Your task to perform on an android device: check the backup settings in the google photos Image 0: 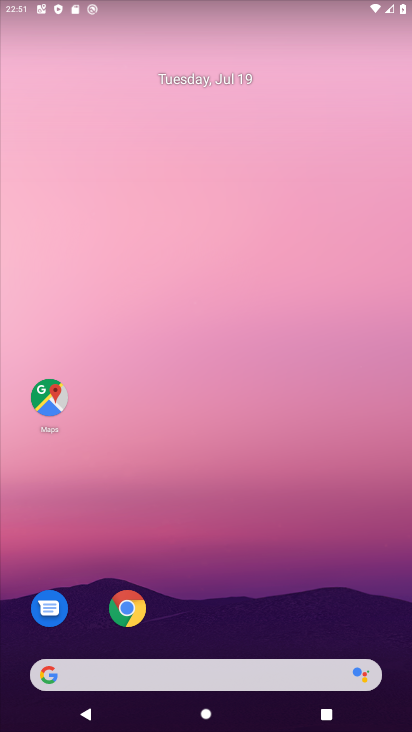
Step 0: drag from (293, 630) to (231, 71)
Your task to perform on an android device: check the backup settings in the google photos Image 1: 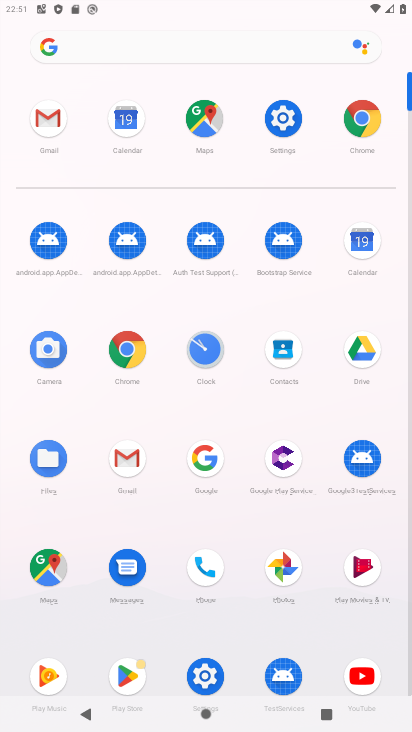
Step 1: click (285, 569)
Your task to perform on an android device: check the backup settings in the google photos Image 2: 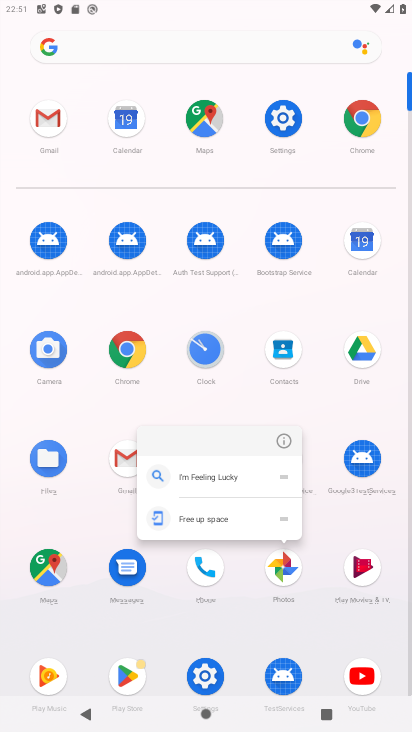
Step 2: click (285, 568)
Your task to perform on an android device: check the backup settings in the google photos Image 3: 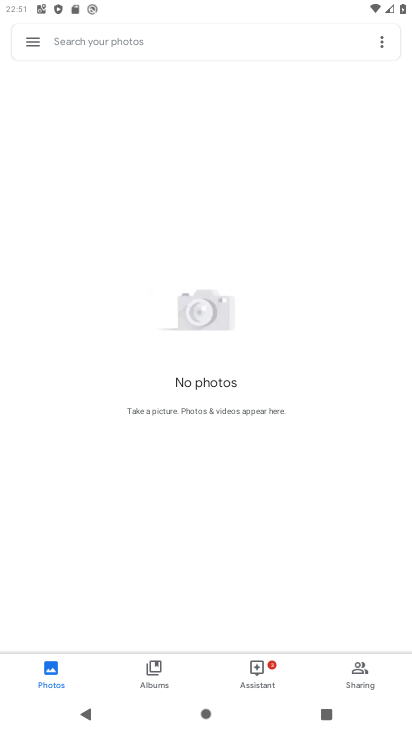
Step 3: click (36, 41)
Your task to perform on an android device: check the backup settings in the google photos Image 4: 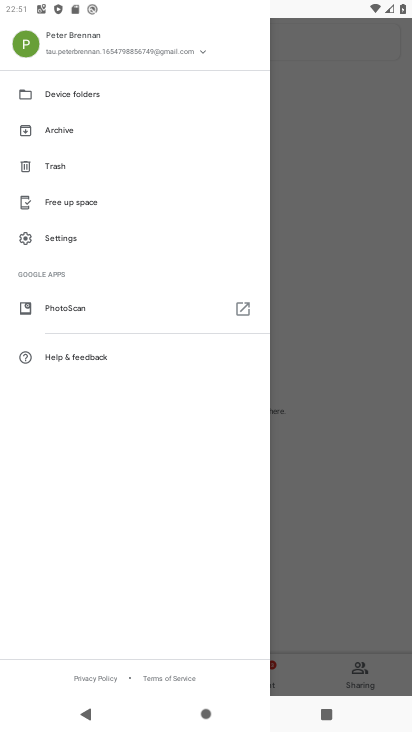
Step 4: click (59, 236)
Your task to perform on an android device: check the backup settings in the google photos Image 5: 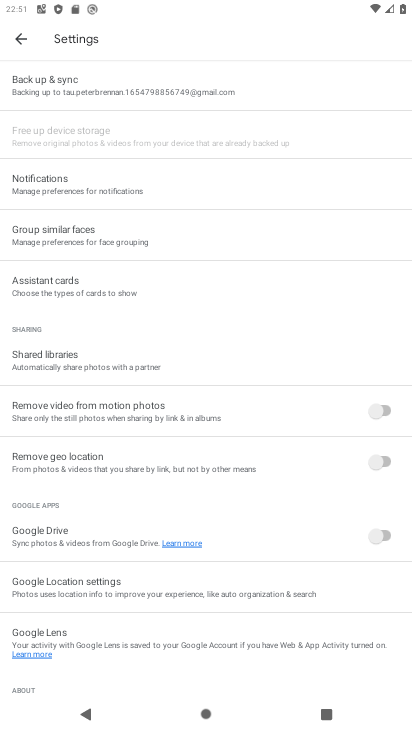
Step 5: click (118, 92)
Your task to perform on an android device: check the backup settings in the google photos Image 6: 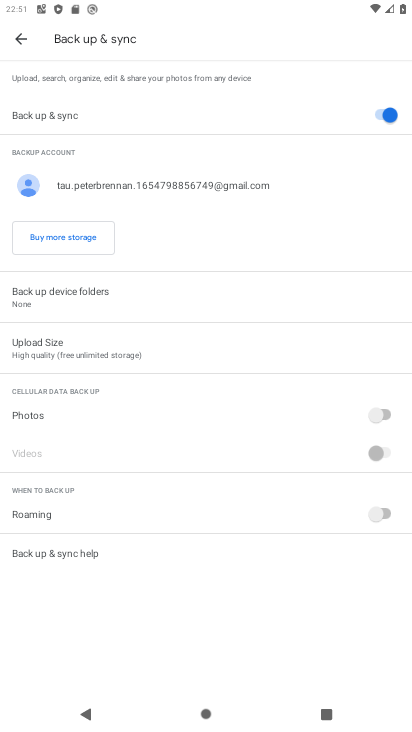
Step 6: task complete